Your task to perform on an android device: turn off wifi Image 0: 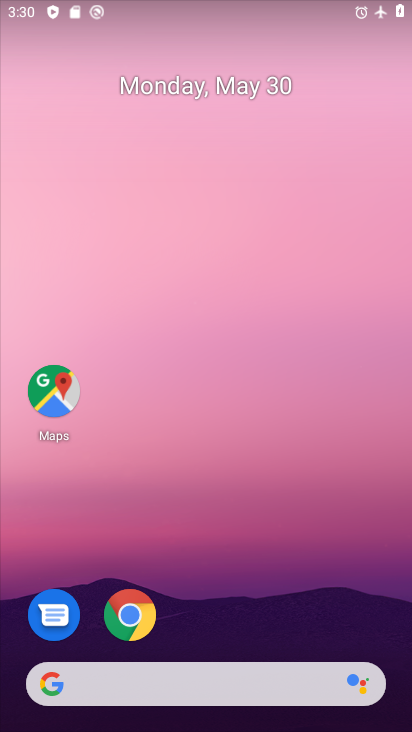
Step 0: drag from (229, 577) to (269, 41)
Your task to perform on an android device: turn off wifi Image 1: 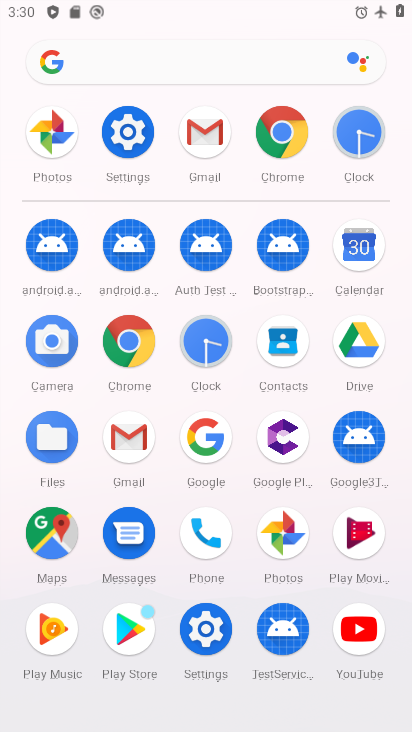
Step 1: click (136, 129)
Your task to perform on an android device: turn off wifi Image 2: 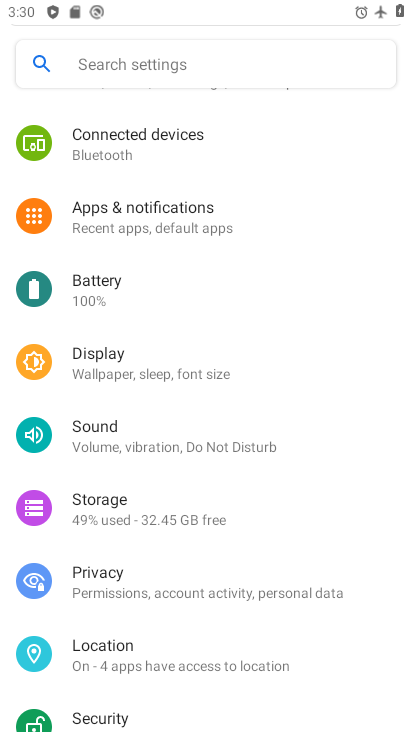
Step 2: drag from (193, 285) to (201, 612)
Your task to perform on an android device: turn off wifi Image 3: 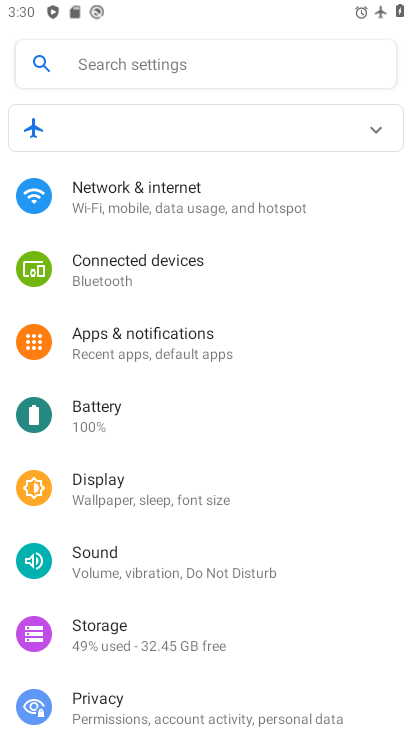
Step 3: click (244, 200)
Your task to perform on an android device: turn off wifi Image 4: 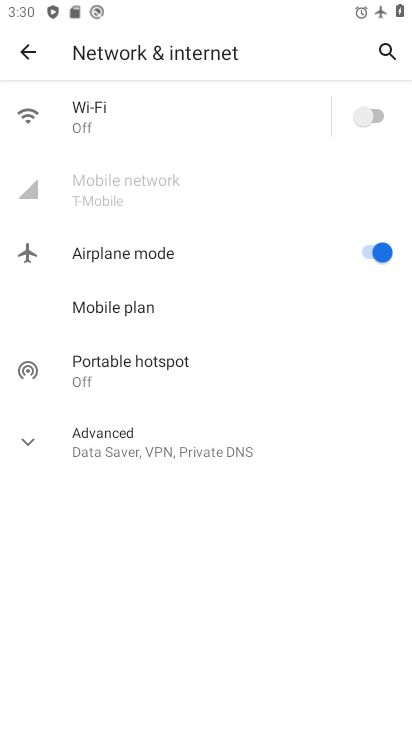
Step 4: task complete